Your task to perform on an android device: turn on priority inbox in the gmail app Image 0: 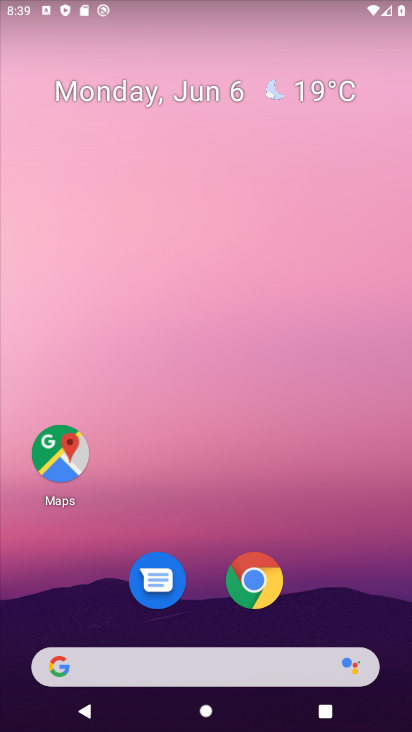
Step 0: drag from (302, 670) to (334, 78)
Your task to perform on an android device: turn on priority inbox in the gmail app Image 1: 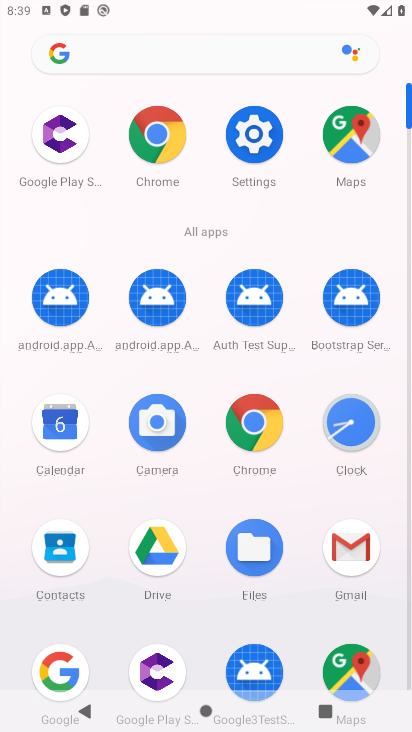
Step 1: click (350, 557)
Your task to perform on an android device: turn on priority inbox in the gmail app Image 2: 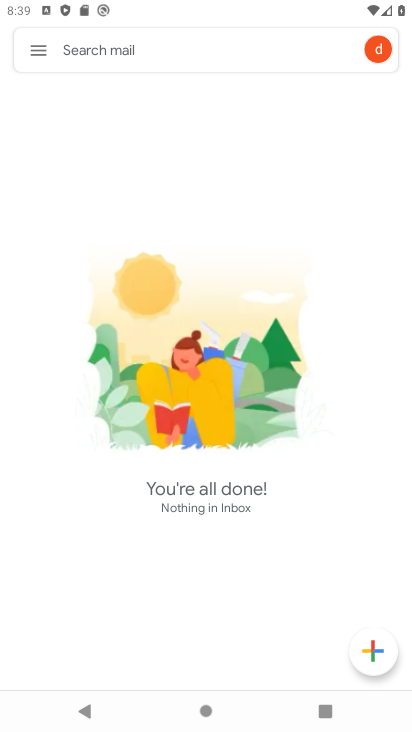
Step 2: click (38, 59)
Your task to perform on an android device: turn on priority inbox in the gmail app Image 3: 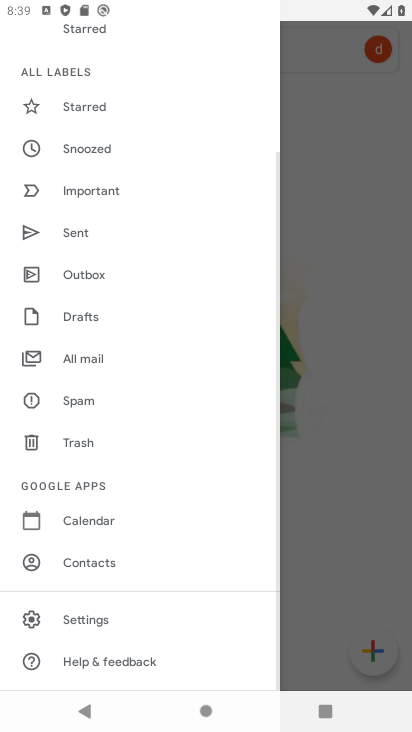
Step 3: click (85, 622)
Your task to perform on an android device: turn on priority inbox in the gmail app Image 4: 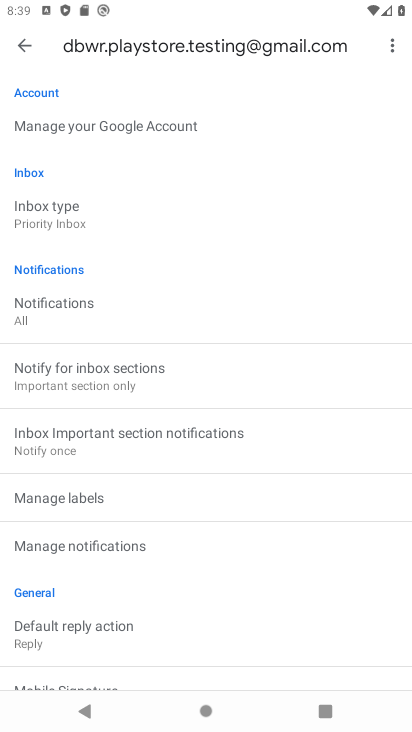
Step 4: task complete